Your task to perform on an android device: Go to accessibility settings Image 0: 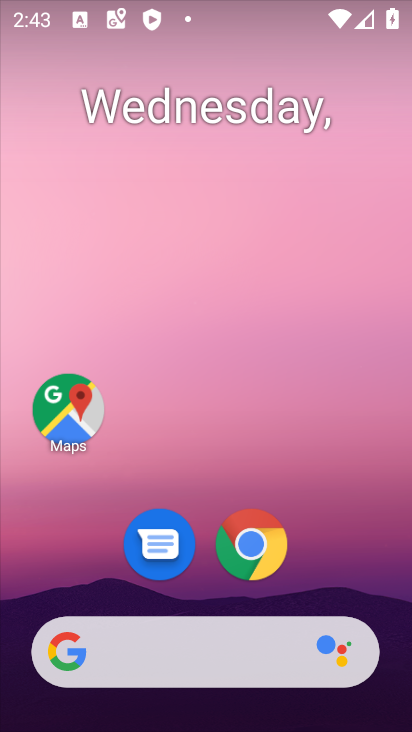
Step 0: drag from (391, 635) to (237, 105)
Your task to perform on an android device: Go to accessibility settings Image 1: 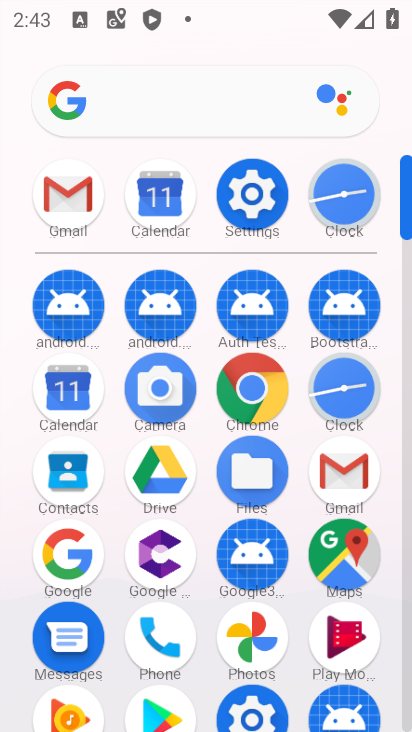
Step 1: click (408, 709)
Your task to perform on an android device: Go to accessibility settings Image 2: 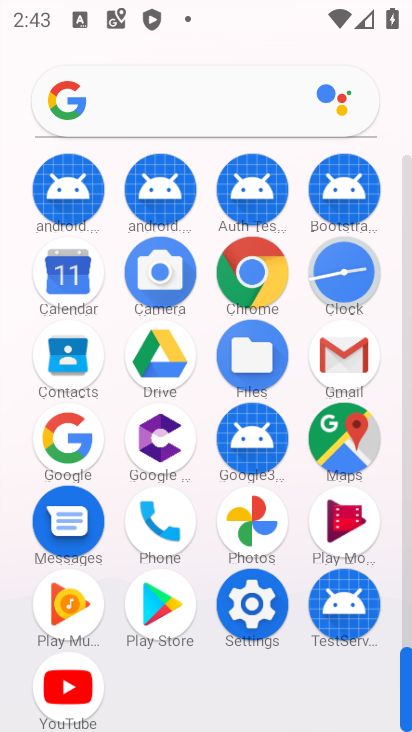
Step 2: click (253, 602)
Your task to perform on an android device: Go to accessibility settings Image 3: 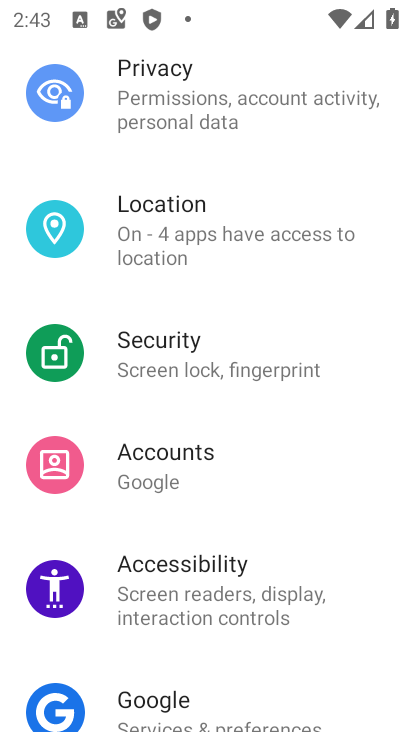
Step 3: click (152, 572)
Your task to perform on an android device: Go to accessibility settings Image 4: 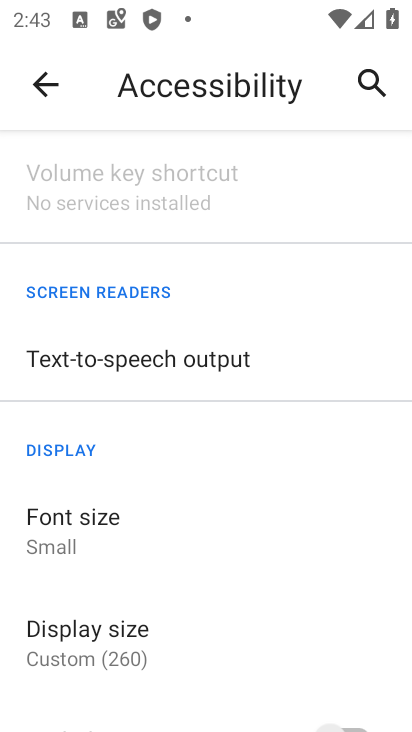
Step 4: task complete